Your task to perform on an android device: Go to Wikipedia Image 0: 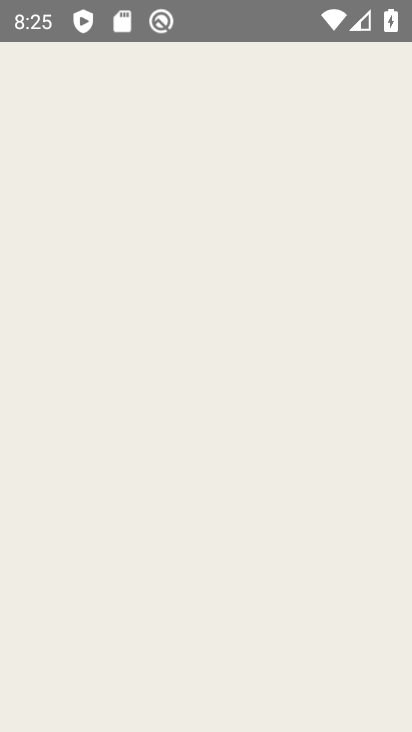
Step 0: click (282, 211)
Your task to perform on an android device: Go to Wikipedia Image 1: 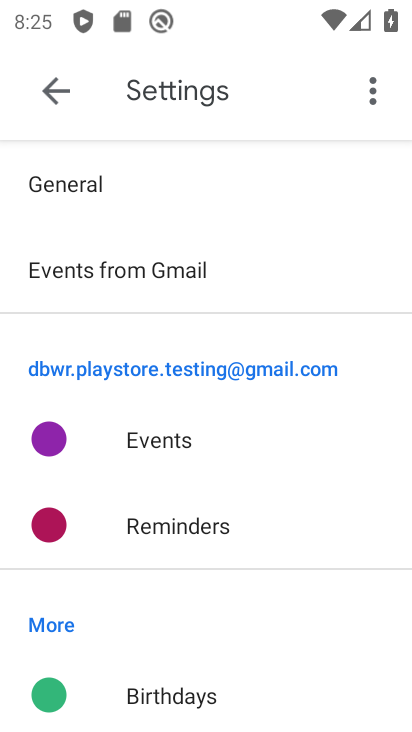
Step 1: press home button
Your task to perform on an android device: Go to Wikipedia Image 2: 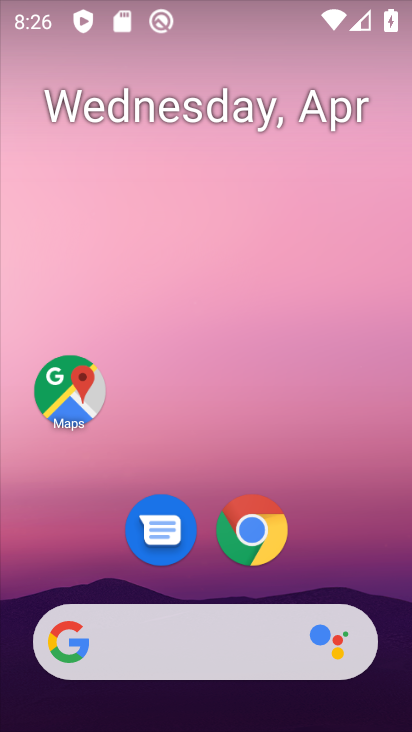
Step 2: drag from (400, 581) to (350, 340)
Your task to perform on an android device: Go to Wikipedia Image 3: 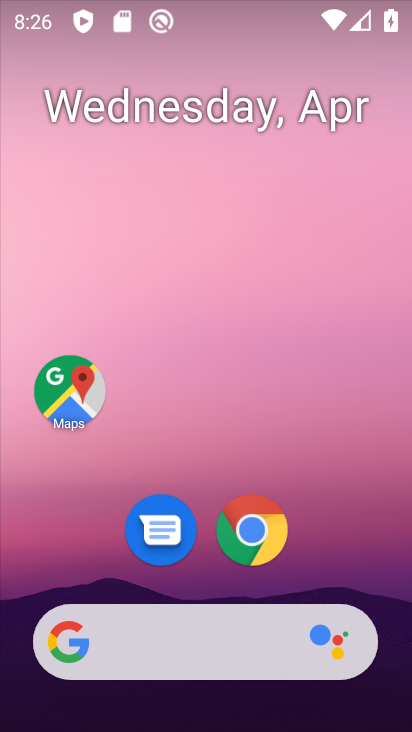
Step 3: drag from (373, 484) to (281, 130)
Your task to perform on an android device: Go to Wikipedia Image 4: 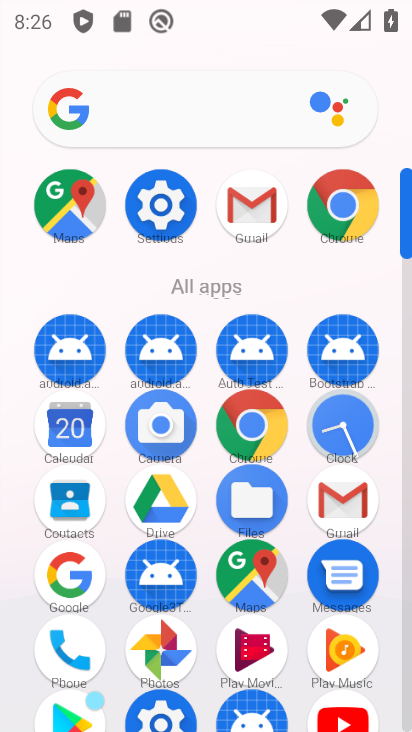
Step 4: click (350, 210)
Your task to perform on an android device: Go to Wikipedia Image 5: 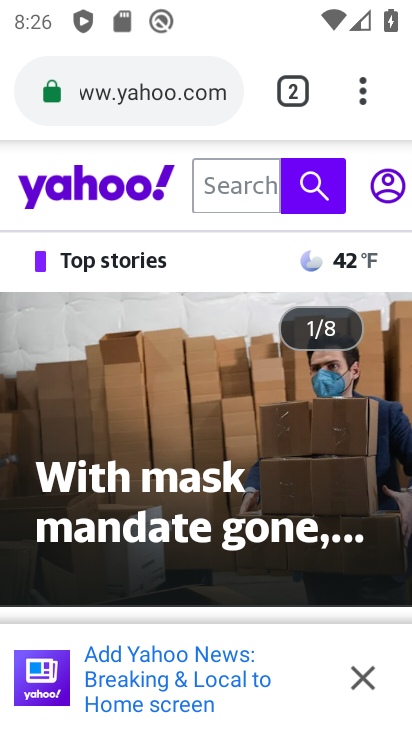
Step 5: click (306, 95)
Your task to perform on an android device: Go to Wikipedia Image 6: 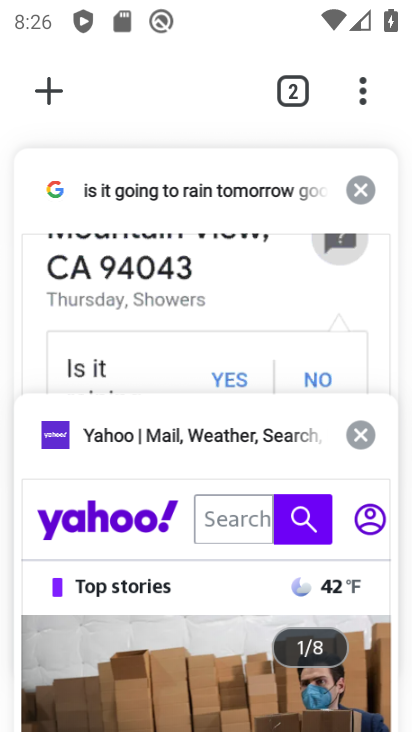
Step 6: click (53, 100)
Your task to perform on an android device: Go to Wikipedia Image 7: 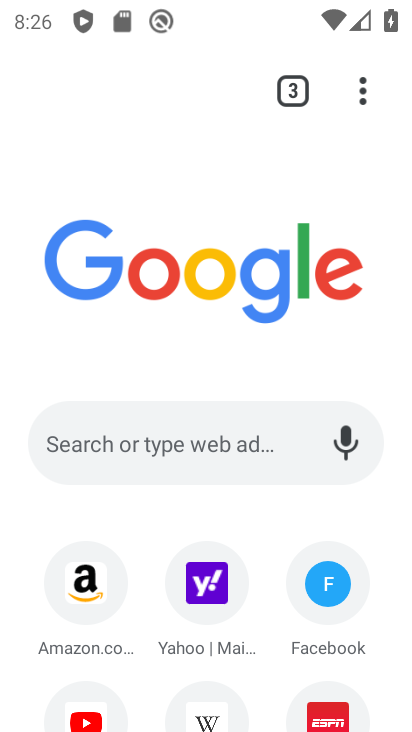
Step 7: click (223, 709)
Your task to perform on an android device: Go to Wikipedia Image 8: 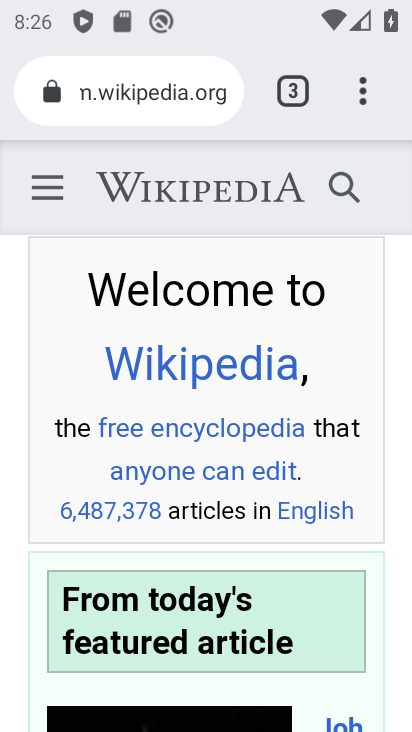
Step 8: task complete